Your task to perform on an android device: set an alarm Image 0: 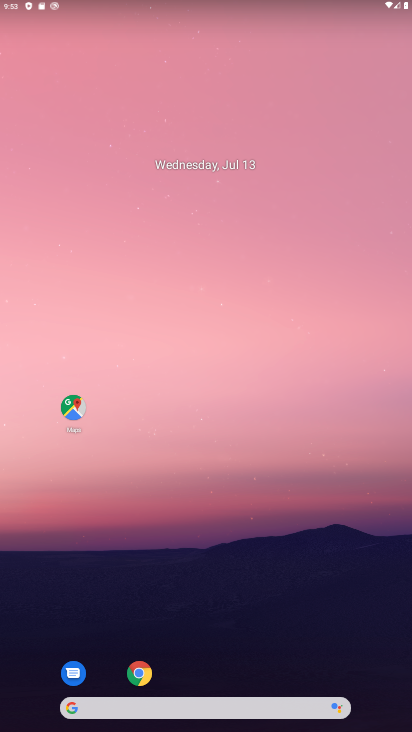
Step 0: drag from (226, 689) to (220, 424)
Your task to perform on an android device: set an alarm Image 1: 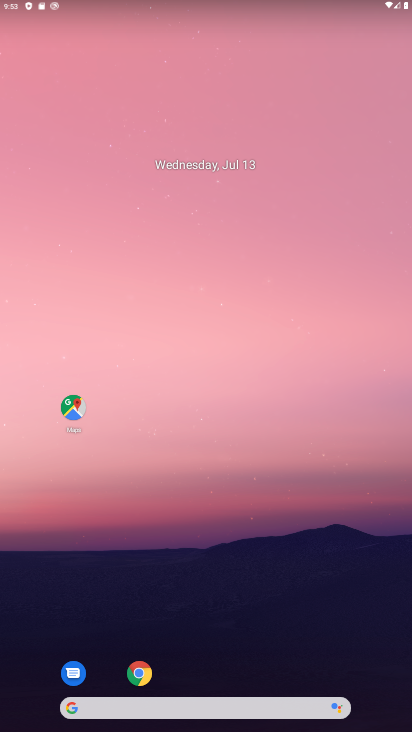
Step 1: drag from (223, 680) to (209, 235)
Your task to perform on an android device: set an alarm Image 2: 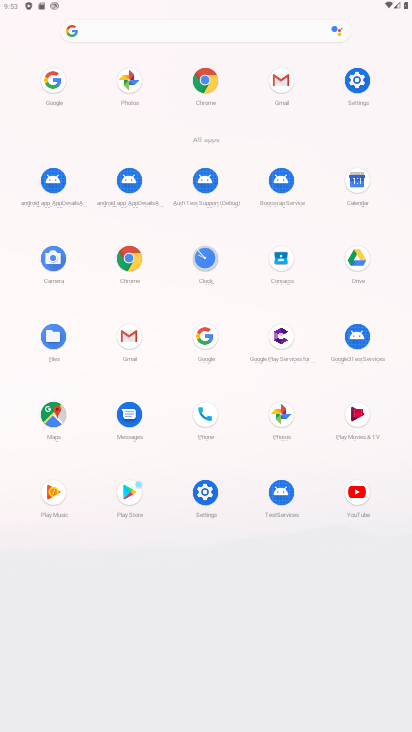
Step 2: click (217, 258)
Your task to perform on an android device: set an alarm Image 3: 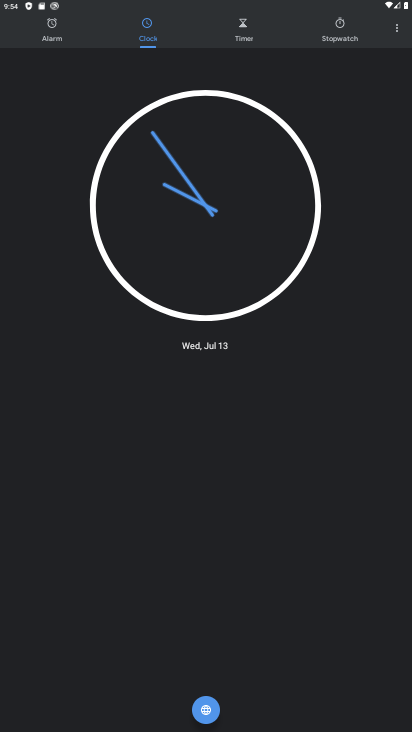
Step 3: click (57, 39)
Your task to perform on an android device: set an alarm Image 4: 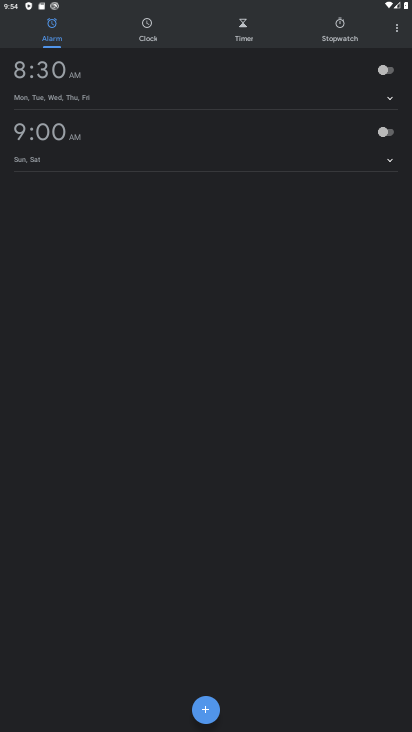
Step 4: click (204, 708)
Your task to perform on an android device: set an alarm Image 5: 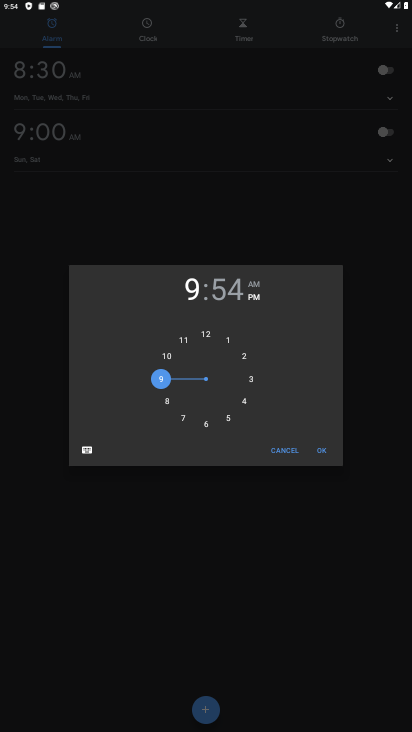
Step 5: click (228, 422)
Your task to perform on an android device: set an alarm Image 6: 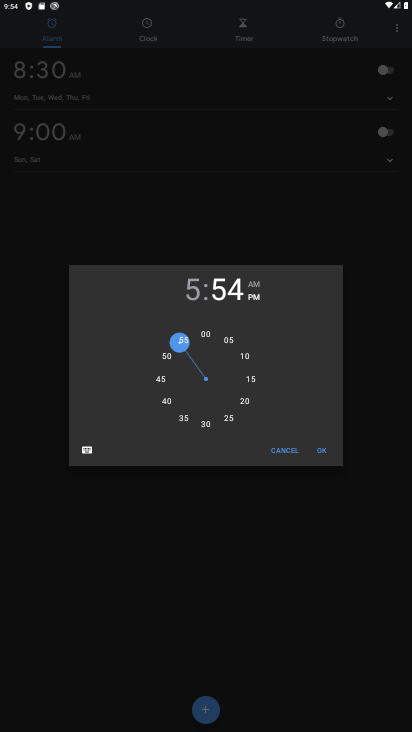
Step 6: click (199, 332)
Your task to perform on an android device: set an alarm Image 7: 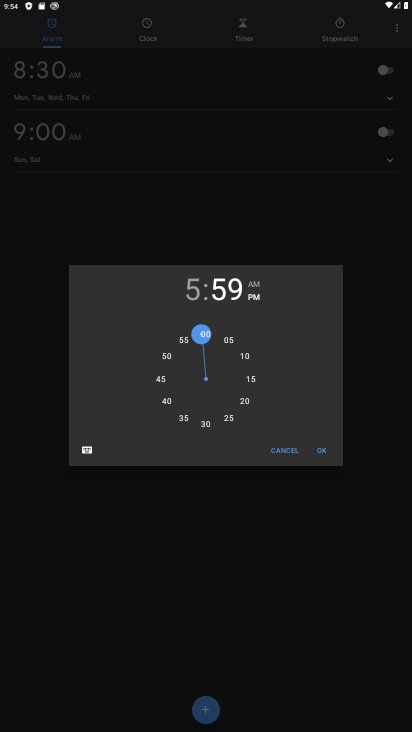
Step 7: click (252, 284)
Your task to perform on an android device: set an alarm Image 8: 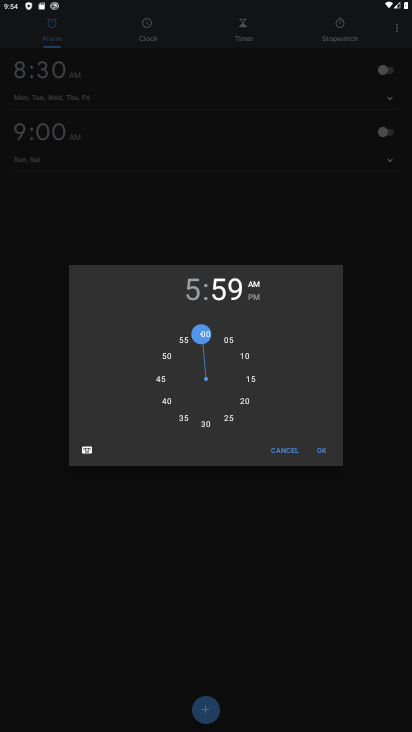
Step 8: click (322, 451)
Your task to perform on an android device: set an alarm Image 9: 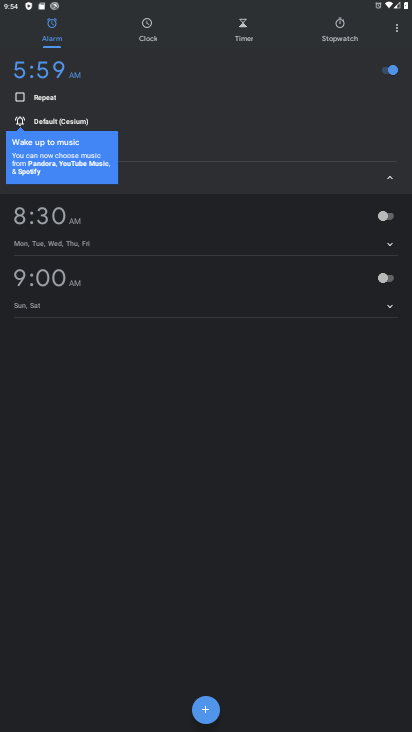
Step 9: task complete